Your task to perform on an android device: change the upload size in google photos Image 0: 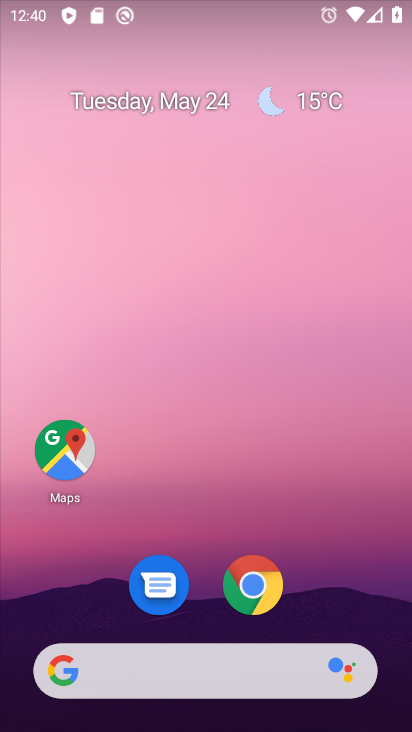
Step 0: drag from (282, 500) to (251, 51)
Your task to perform on an android device: change the upload size in google photos Image 1: 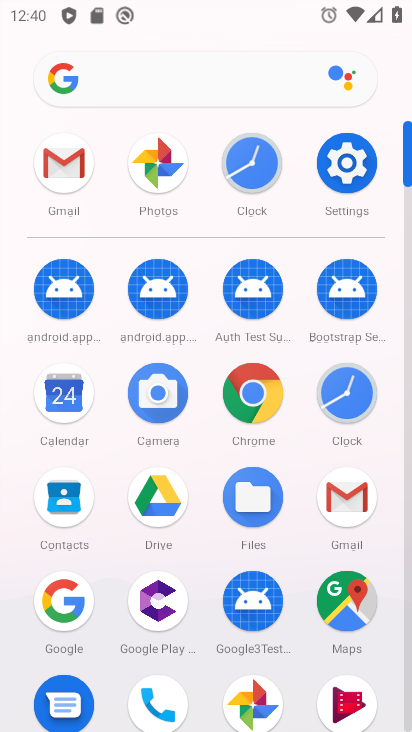
Step 1: click (157, 167)
Your task to perform on an android device: change the upload size in google photos Image 2: 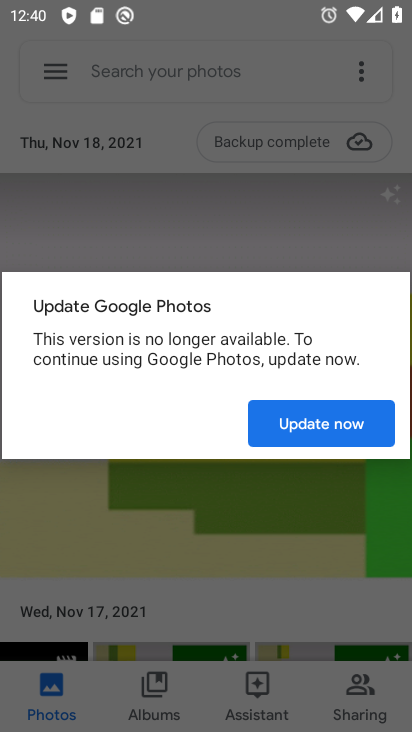
Step 2: click (347, 420)
Your task to perform on an android device: change the upload size in google photos Image 3: 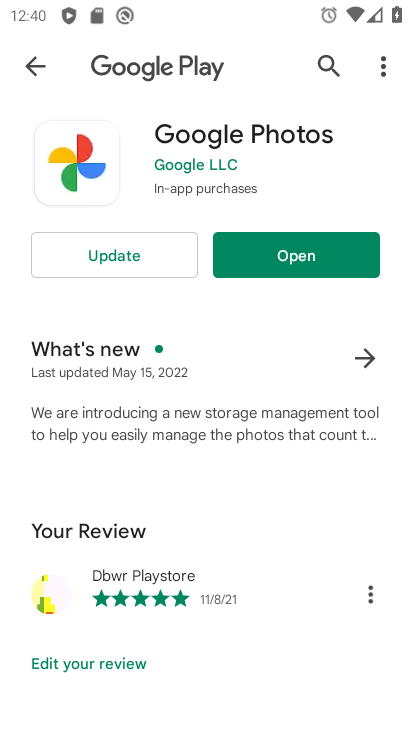
Step 3: click (257, 262)
Your task to perform on an android device: change the upload size in google photos Image 4: 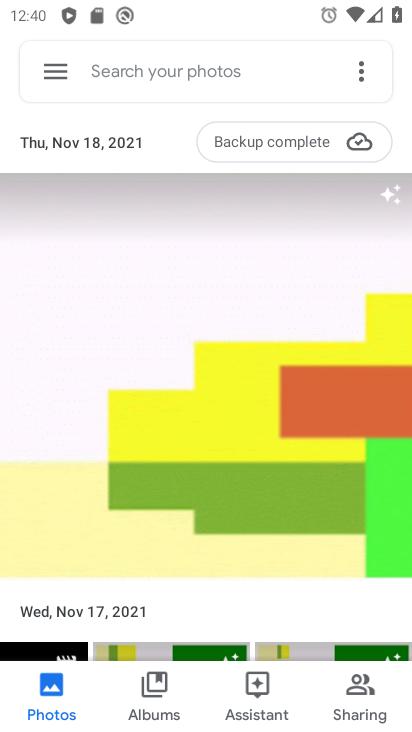
Step 4: click (60, 62)
Your task to perform on an android device: change the upload size in google photos Image 5: 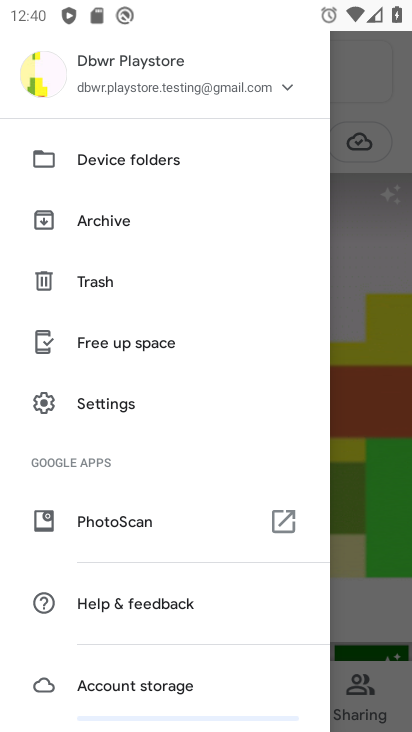
Step 5: click (122, 392)
Your task to perform on an android device: change the upload size in google photos Image 6: 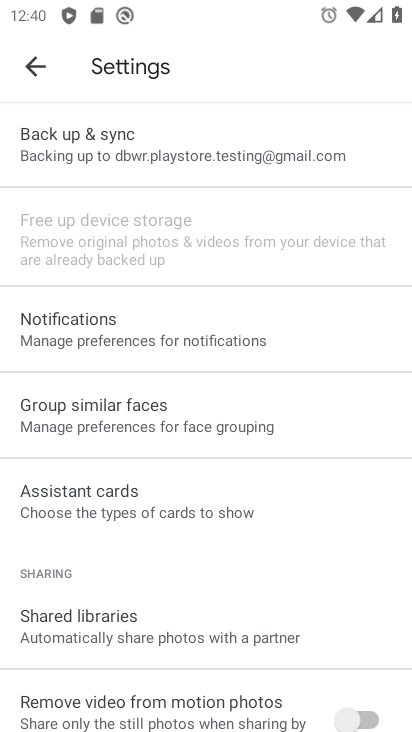
Step 6: click (180, 145)
Your task to perform on an android device: change the upload size in google photos Image 7: 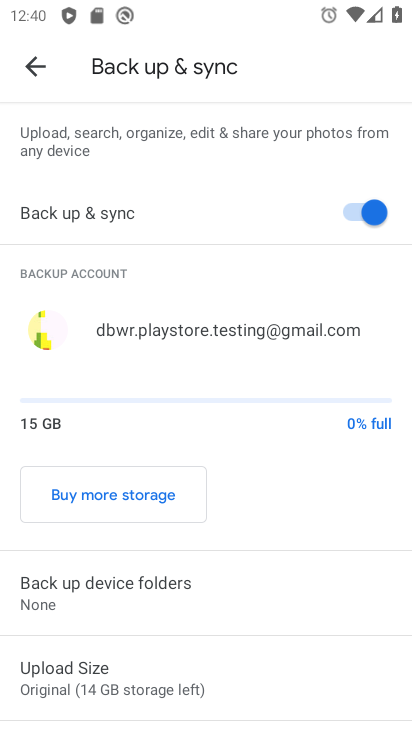
Step 7: click (164, 655)
Your task to perform on an android device: change the upload size in google photos Image 8: 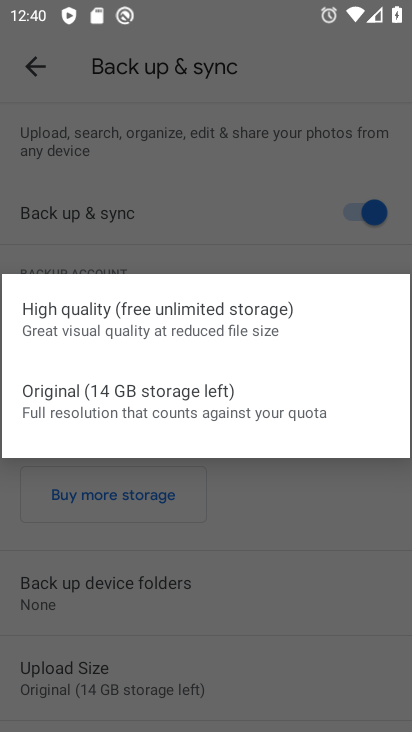
Step 8: click (222, 314)
Your task to perform on an android device: change the upload size in google photos Image 9: 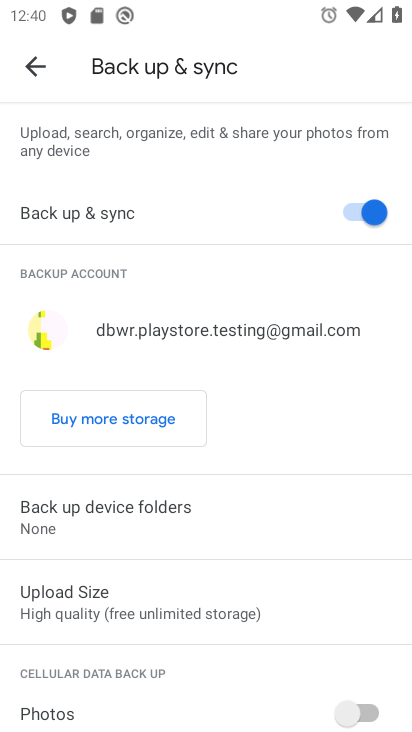
Step 9: task complete